Your task to perform on an android device: open wifi settings Image 0: 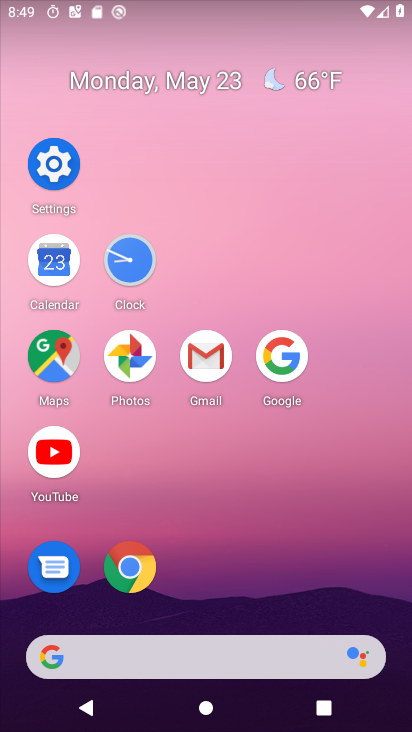
Step 0: click (50, 182)
Your task to perform on an android device: open wifi settings Image 1: 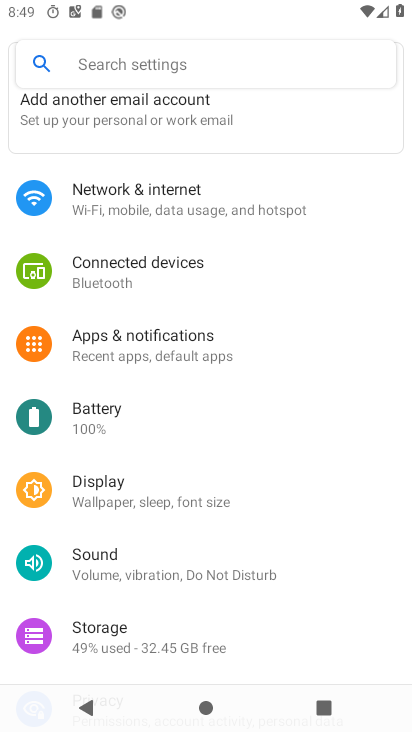
Step 1: click (273, 189)
Your task to perform on an android device: open wifi settings Image 2: 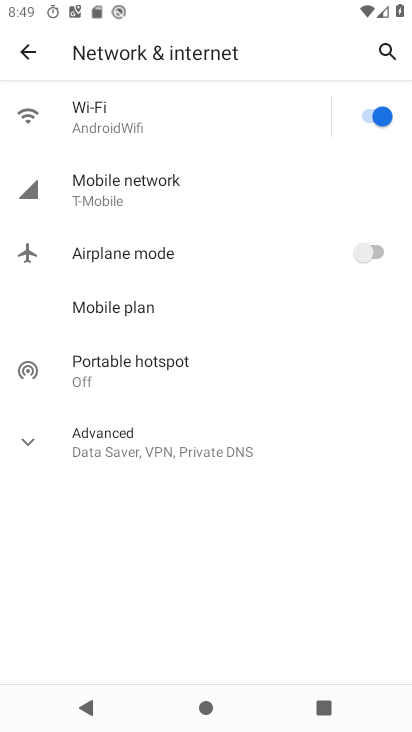
Step 2: click (184, 127)
Your task to perform on an android device: open wifi settings Image 3: 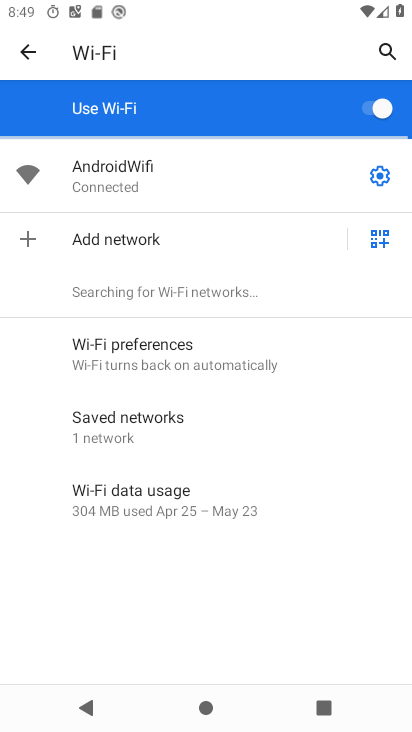
Step 3: click (384, 183)
Your task to perform on an android device: open wifi settings Image 4: 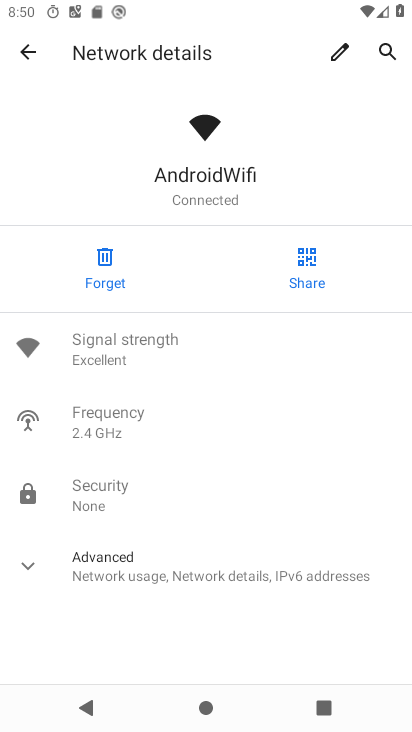
Step 4: task complete